Your task to perform on an android device: turn notification dots on Image 0: 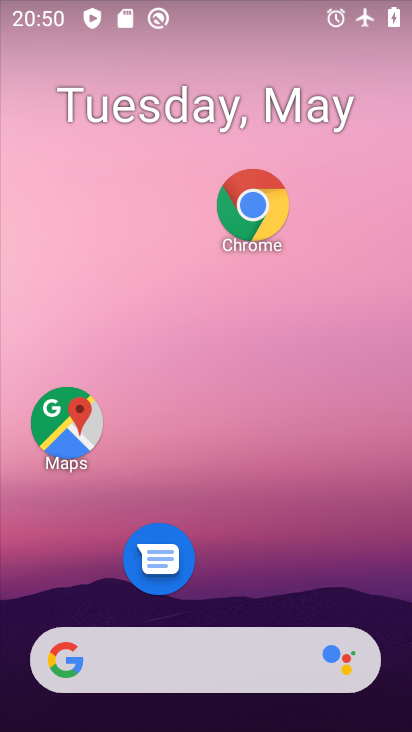
Step 0: drag from (225, 590) to (227, 119)
Your task to perform on an android device: turn notification dots on Image 1: 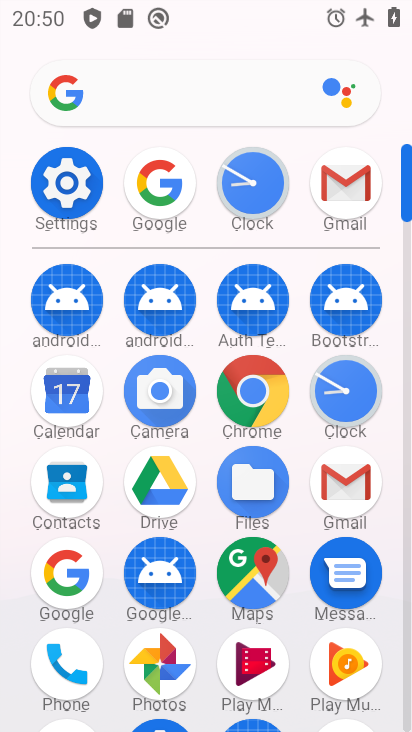
Step 1: click (73, 186)
Your task to perform on an android device: turn notification dots on Image 2: 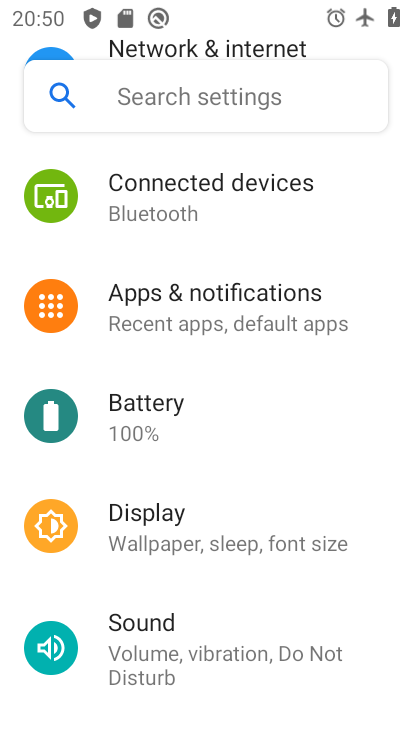
Step 2: drag from (157, 206) to (180, 302)
Your task to perform on an android device: turn notification dots on Image 3: 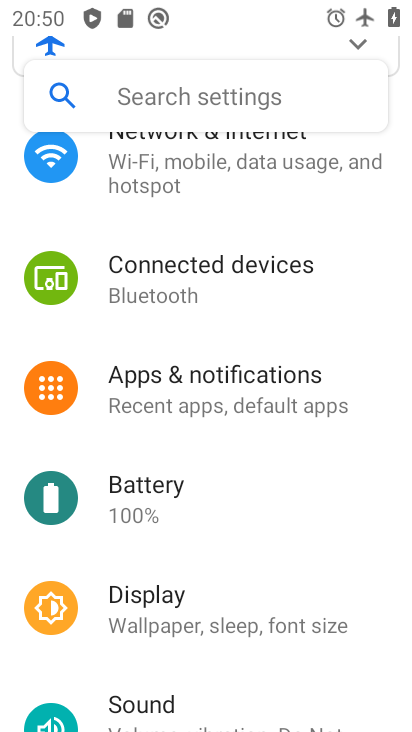
Step 3: click (179, 359)
Your task to perform on an android device: turn notification dots on Image 4: 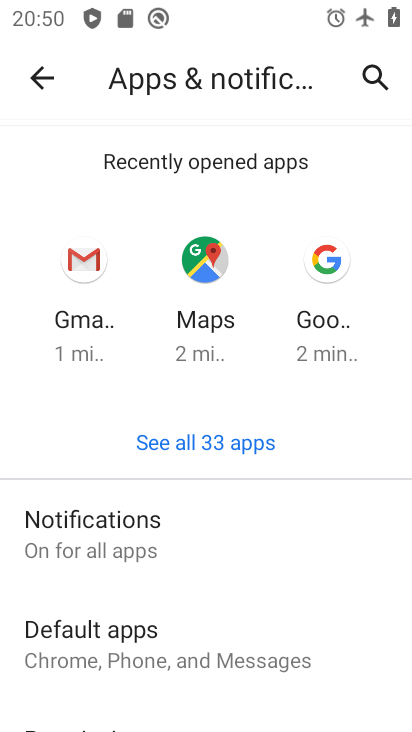
Step 4: click (176, 515)
Your task to perform on an android device: turn notification dots on Image 5: 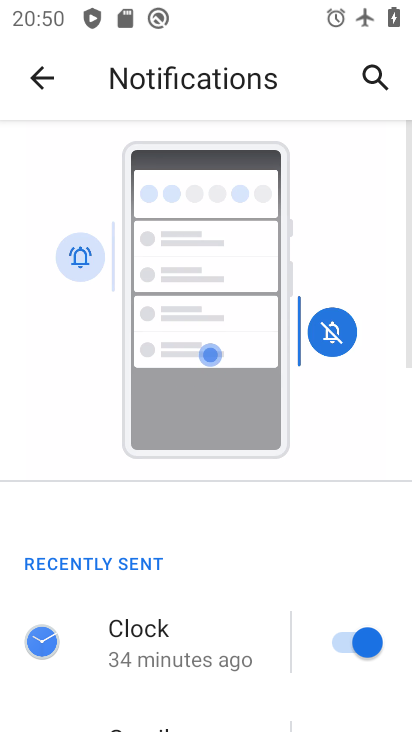
Step 5: drag from (195, 626) to (213, 324)
Your task to perform on an android device: turn notification dots on Image 6: 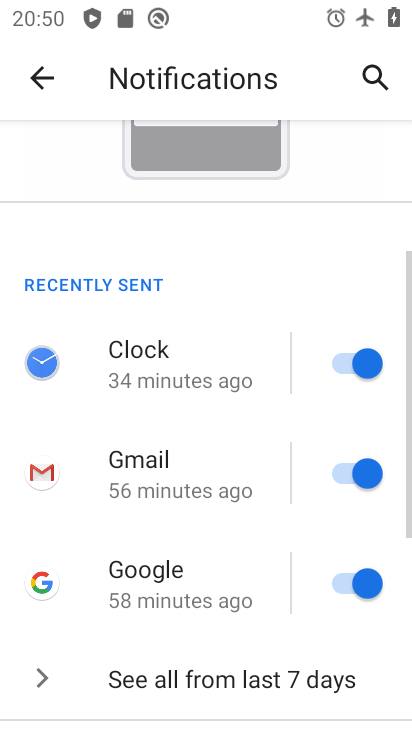
Step 6: drag from (213, 612) to (225, 351)
Your task to perform on an android device: turn notification dots on Image 7: 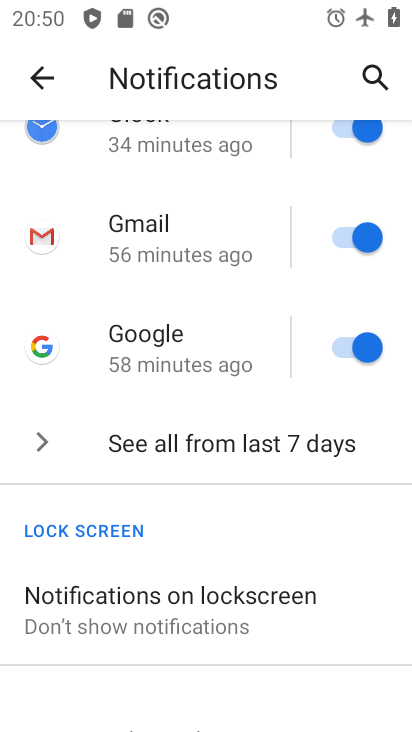
Step 7: drag from (227, 604) to (236, 337)
Your task to perform on an android device: turn notification dots on Image 8: 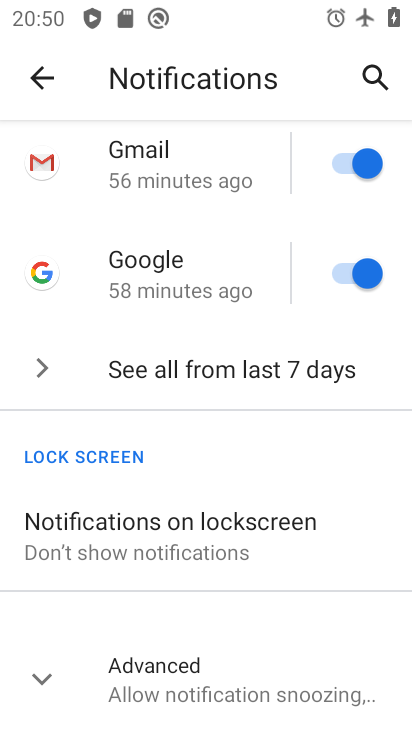
Step 8: click (218, 652)
Your task to perform on an android device: turn notification dots on Image 9: 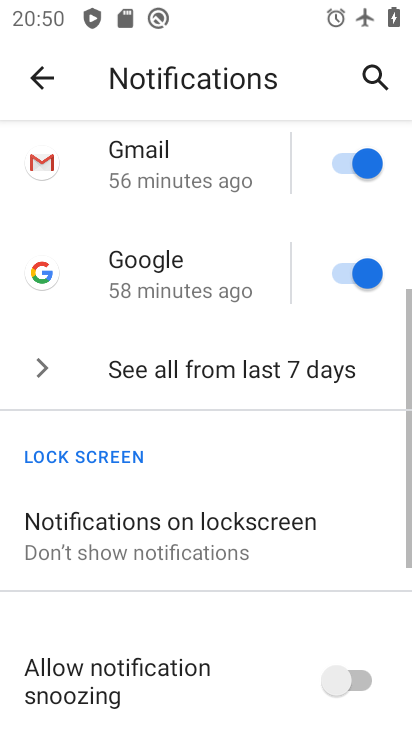
Step 9: drag from (221, 649) to (246, 266)
Your task to perform on an android device: turn notification dots on Image 10: 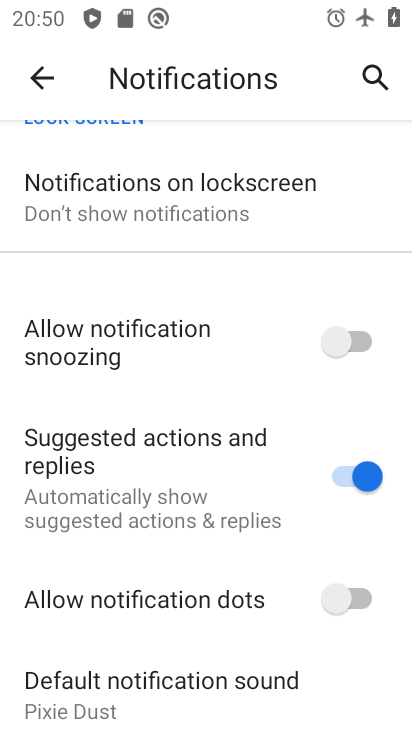
Step 10: click (367, 583)
Your task to perform on an android device: turn notification dots on Image 11: 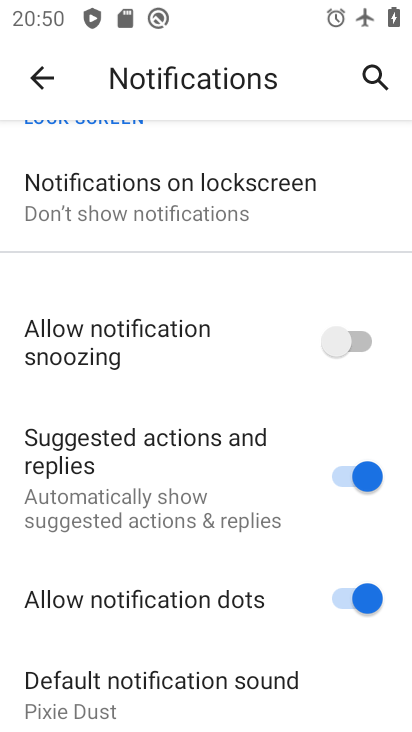
Step 11: task complete